Your task to perform on an android device: View the shopping cart on costco. Search for "logitech g502" on costco, select the first entry, and add it to the cart. Image 0: 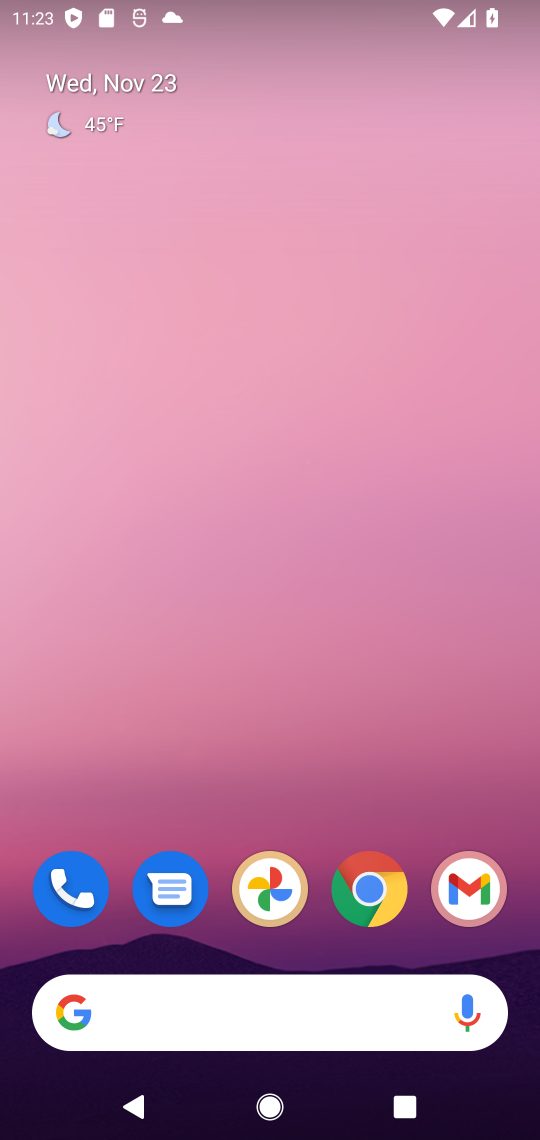
Step 0: click (378, 888)
Your task to perform on an android device: View the shopping cart on costco. Search for "logitech g502" on costco, select the first entry, and add it to the cart. Image 1: 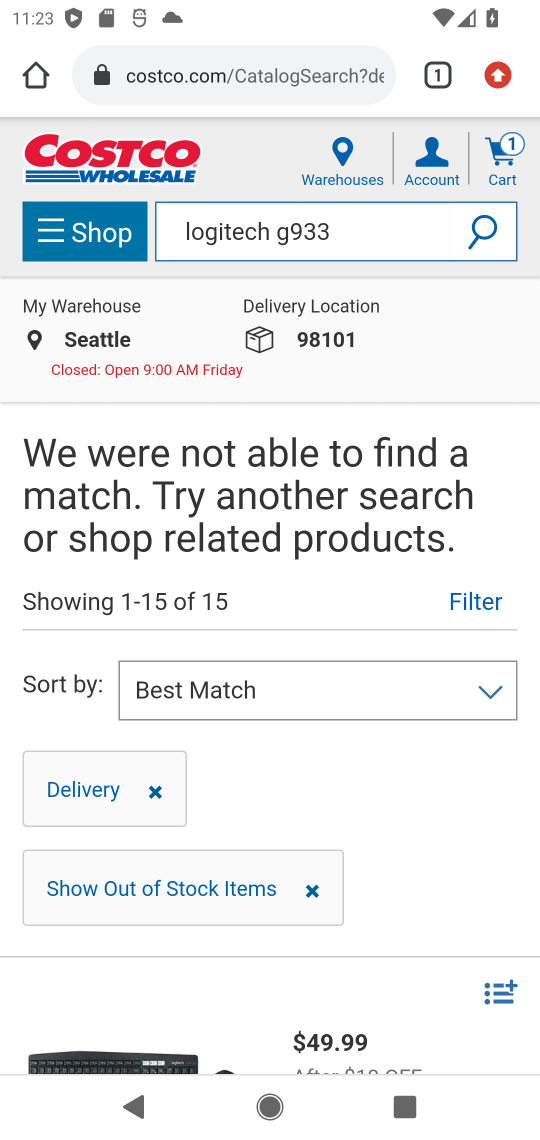
Step 1: click (361, 237)
Your task to perform on an android device: View the shopping cart on costco. Search for "logitech g502" on costco, select the first entry, and add it to the cart. Image 2: 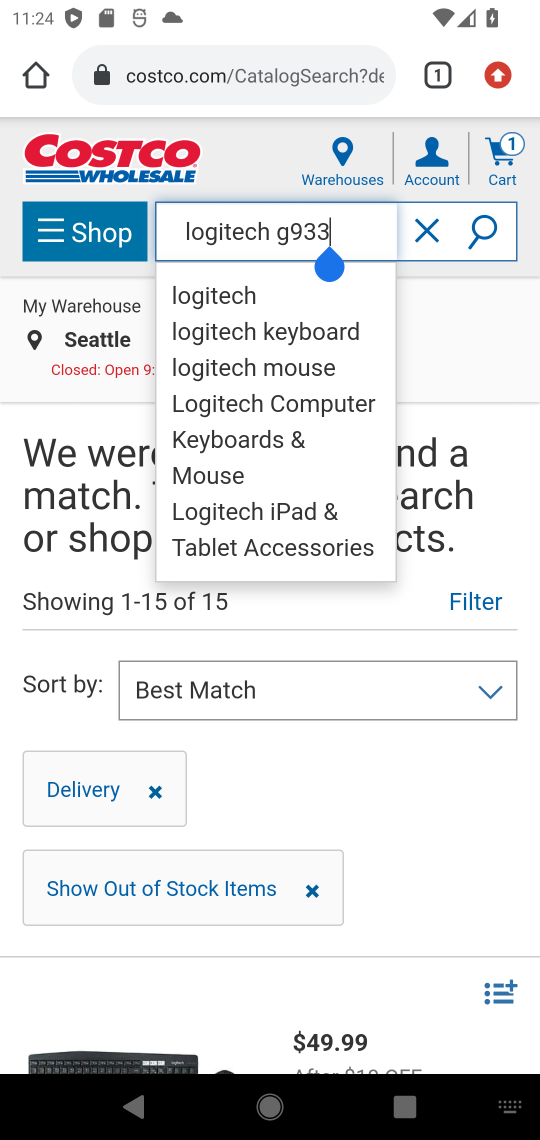
Step 2: click (423, 227)
Your task to perform on an android device: View the shopping cart on costco. Search for "logitech g502" on costco, select the first entry, and add it to the cart. Image 3: 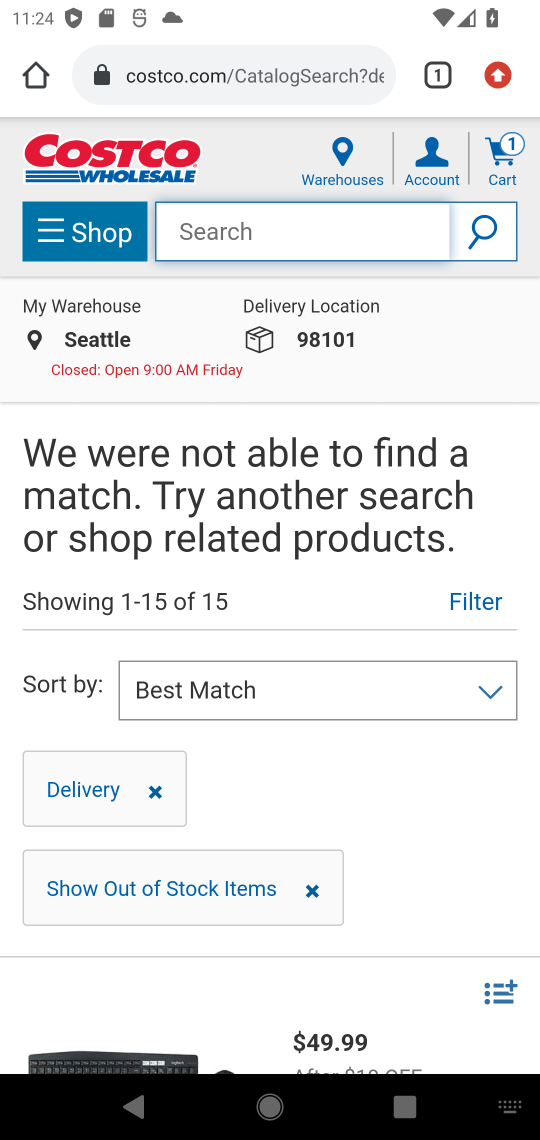
Step 3: click (502, 156)
Your task to perform on an android device: View the shopping cart on costco. Search for "logitech g502" on costco, select the first entry, and add it to the cart. Image 4: 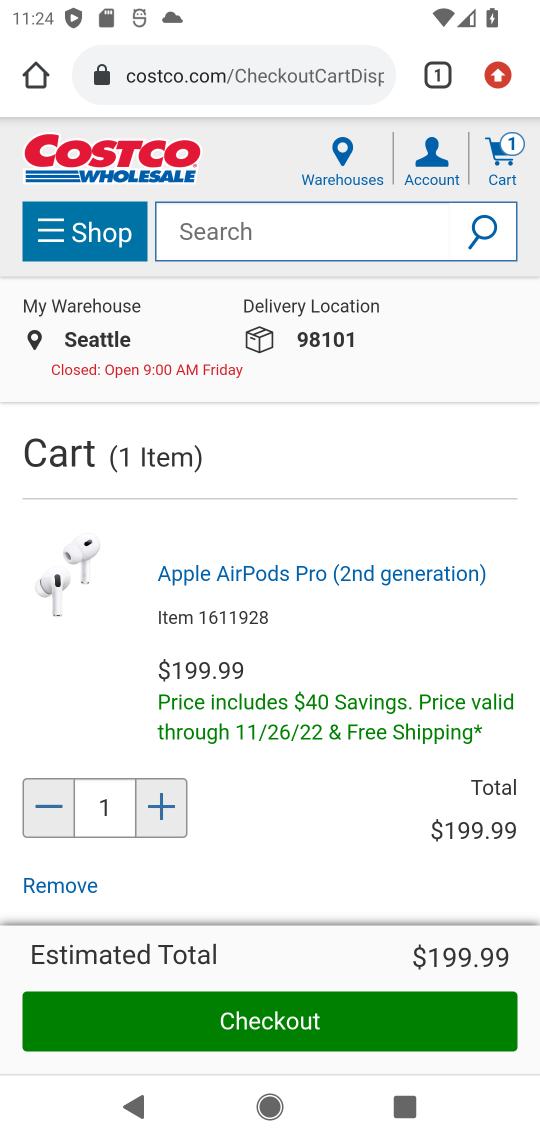
Step 4: drag from (249, 720) to (313, 347)
Your task to perform on an android device: View the shopping cart on costco. Search for "logitech g502" on costco, select the first entry, and add it to the cart. Image 5: 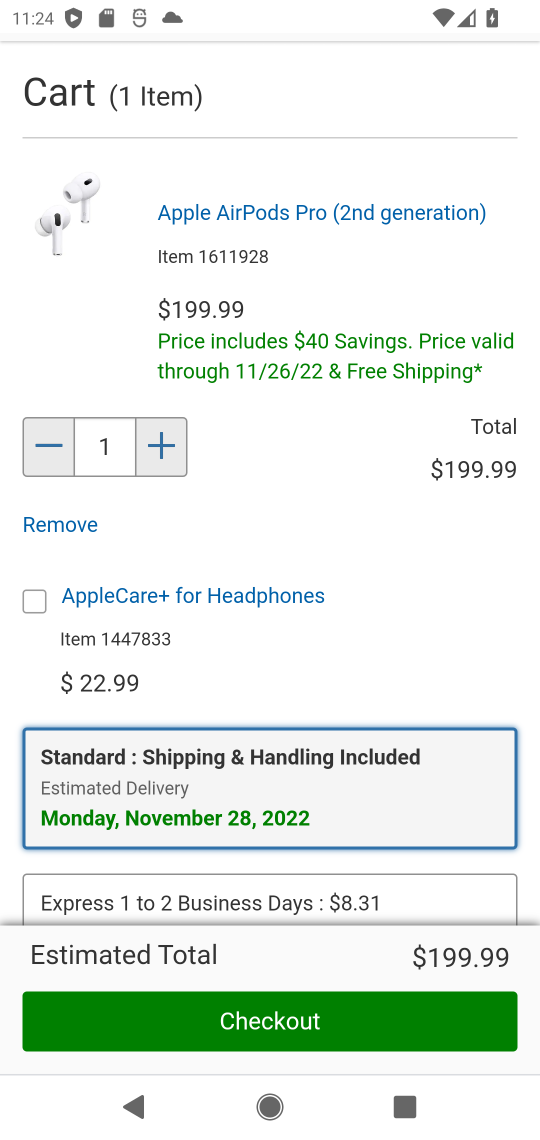
Step 5: drag from (263, 565) to (331, 303)
Your task to perform on an android device: View the shopping cart on costco. Search for "logitech g502" on costco, select the first entry, and add it to the cart. Image 6: 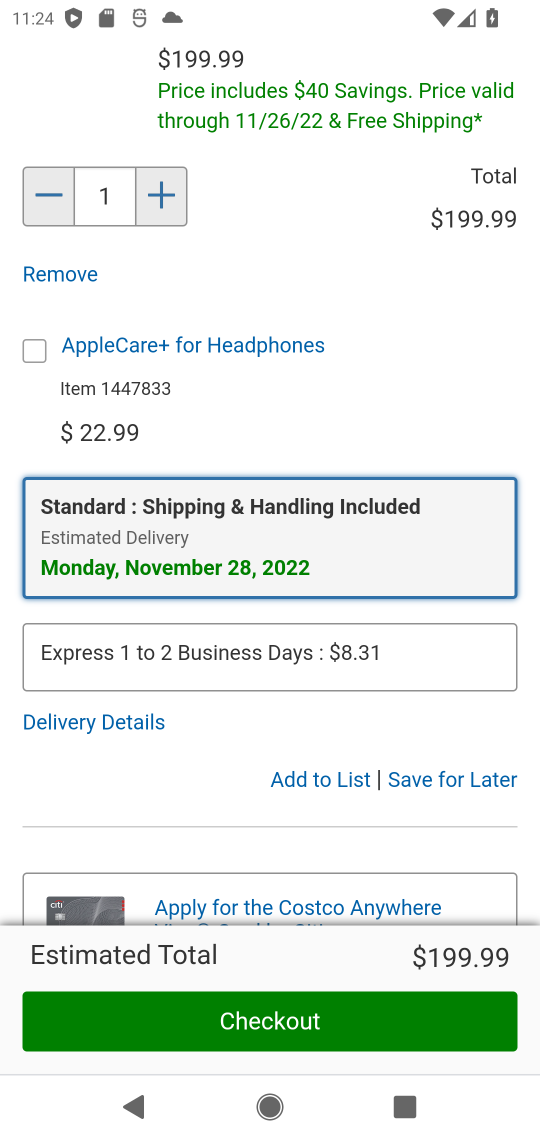
Step 6: drag from (331, 304) to (226, 1028)
Your task to perform on an android device: View the shopping cart on costco. Search for "logitech g502" on costco, select the first entry, and add it to the cart. Image 7: 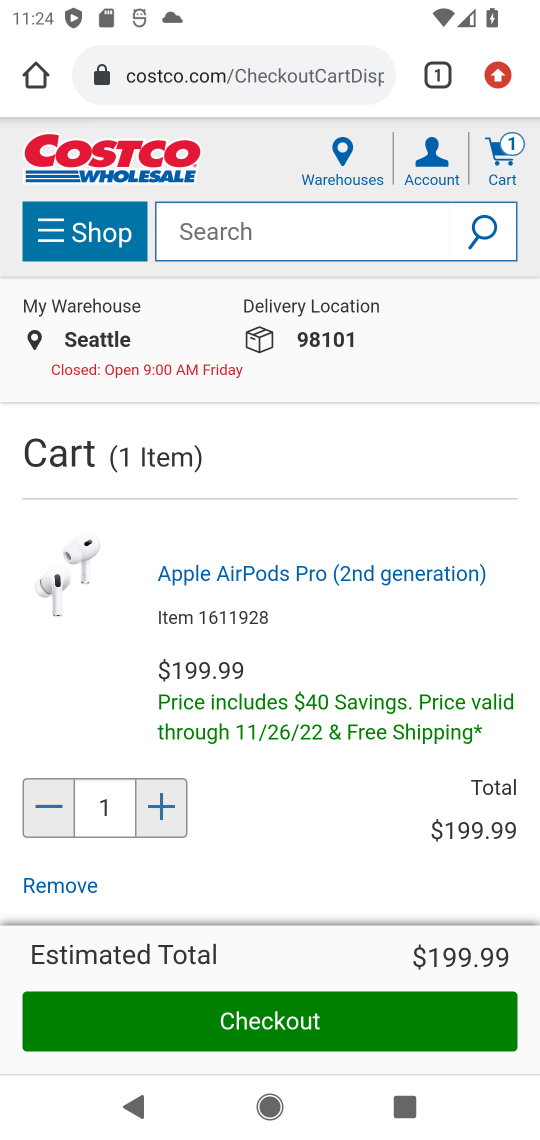
Step 7: click (264, 236)
Your task to perform on an android device: View the shopping cart on costco. Search for "logitech g502" on costco, select the first entry, and add it to the cart. Image 8: 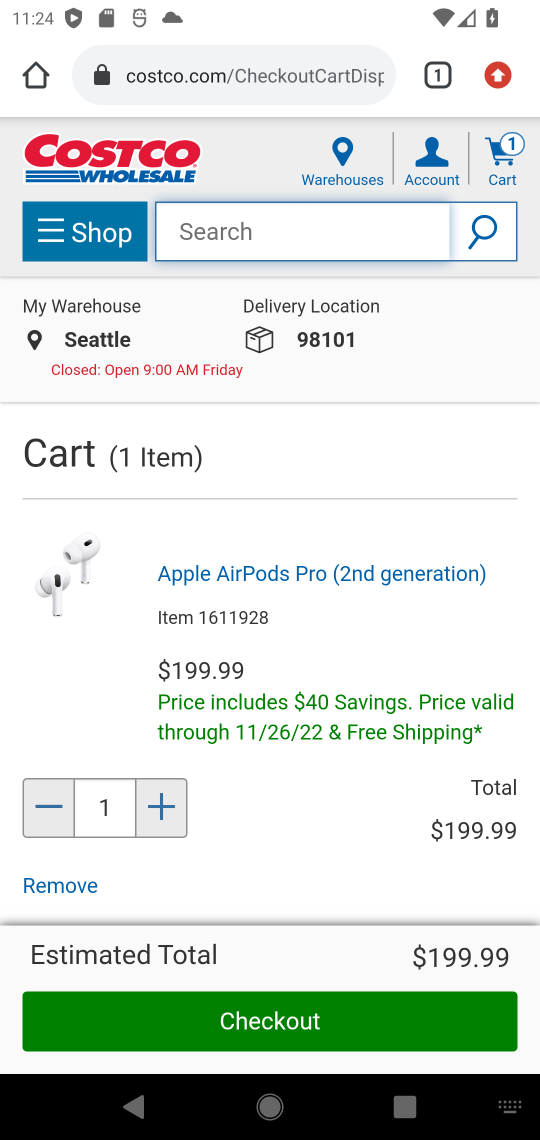
Step 8: click (227, 229)
Your task to perform on an android device: View the shopping cart on costco. Search for "logitech g502" on costco, select the first entry, and add it to the cart. Image 9: 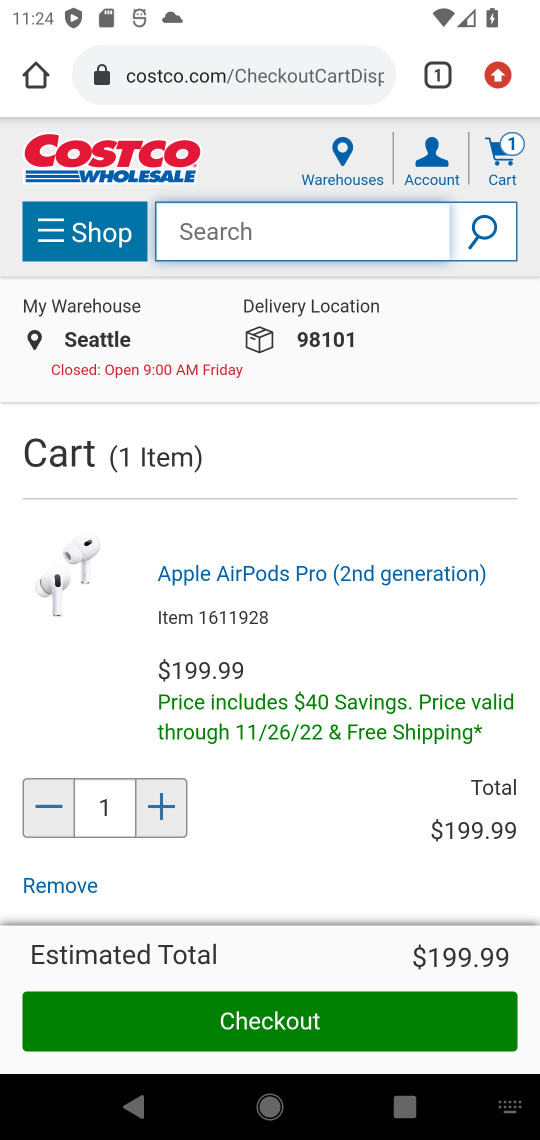
Step 9: type "logitech g502"
Your task to perform on an android device: View the shopping cart on costco. Search for "logitech g502" on costco, select the first entry, and add it to the cart. Image 10: 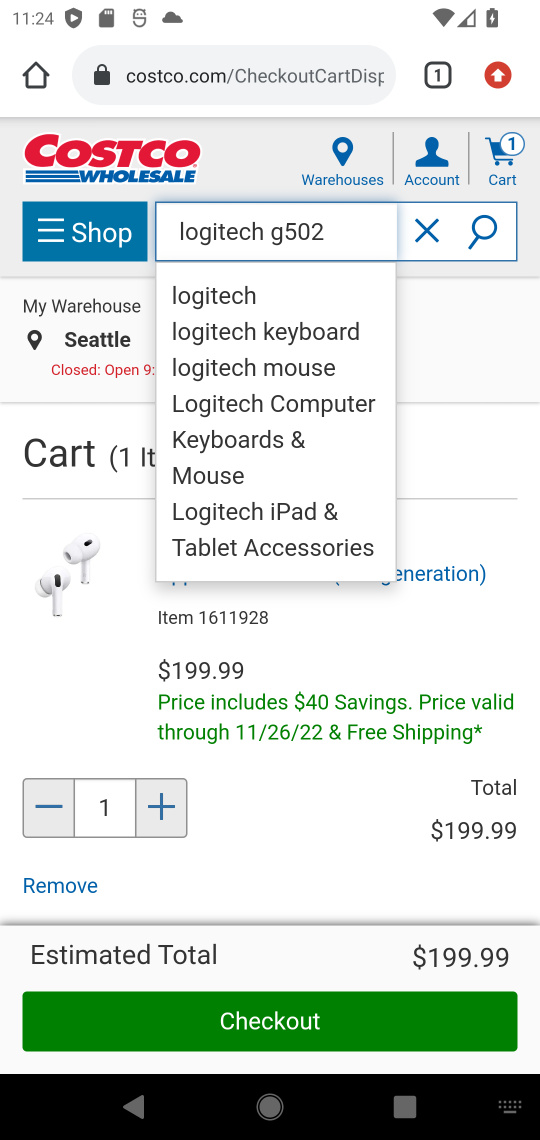
Step 10: click (487, 220)
Your task to perform on an android device: View the shopping cart on costco. Search for "logitech g502" on costco, select the first entry, and add it to the cart. Image 11: 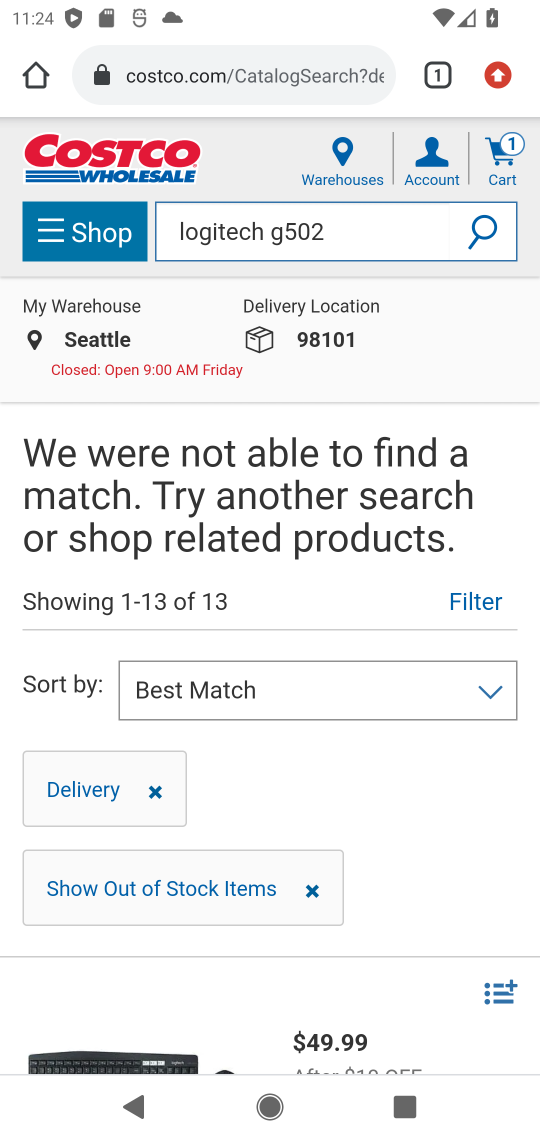
Step 11: task complete